Your task to perform on an android device: open app "Adobe Acrobat Reader" (install if not already installed) Image 0: 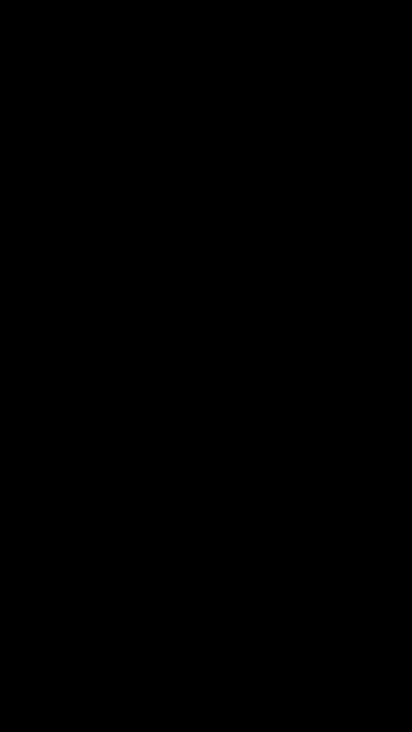
Step 0: click (165, 231)
Your task to perform on an android device: open app "Adobe Acrobat Reader" (install if not already installed) Image 1: 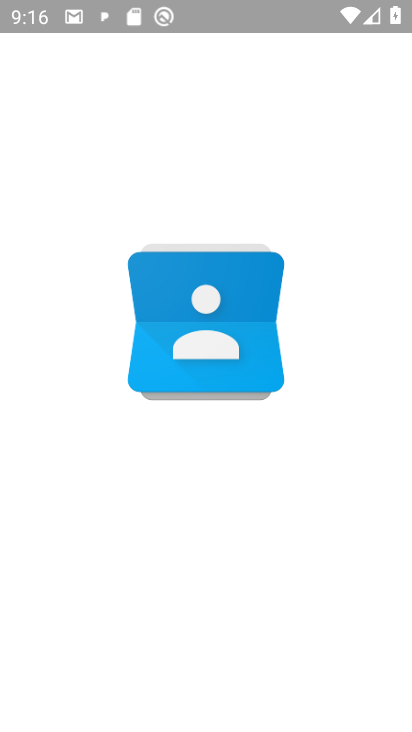
Step 1: drag from (188, 52) to (208, 356)
Your task to perform on an android device: open app "Adobe Acrobat Reader" (install if not already installed) Image 2: 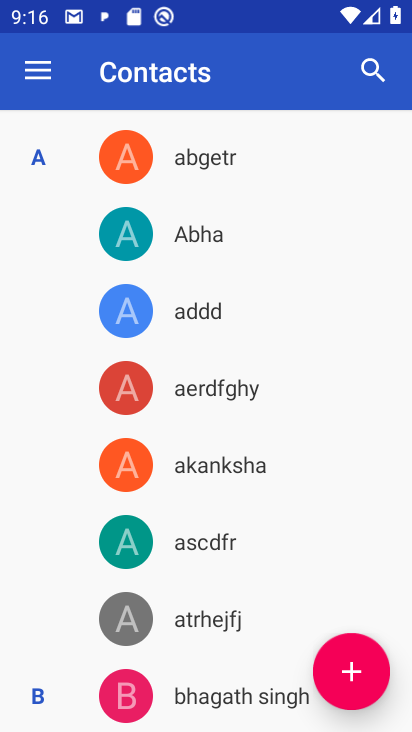
Step 2: press home button
Your task to perform on an android device: open app "Adobe Acrobat Reader" (install if not already installed) Image 3: 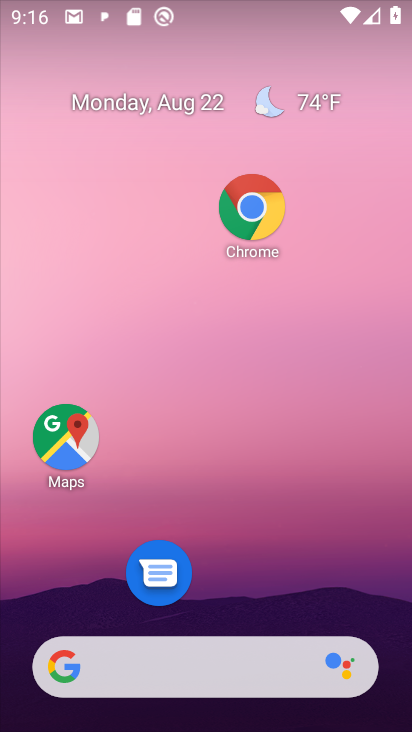
Step 3: drag from (217, 580) to (266, 82)
Your task to perform on an android device: open app "Adobe Acrobat Reader" (install if not already installed) Image 4: 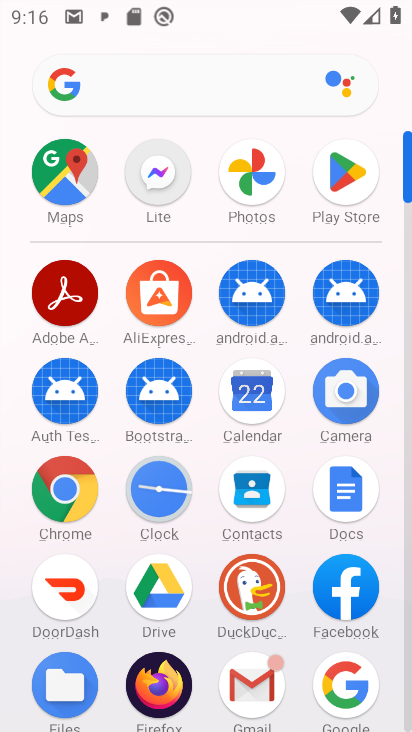
Step 4: click (354, 180)
Your task to perform on an android device: open app "Adobe Acrobat Reader" (install if not already installed) Image 5: 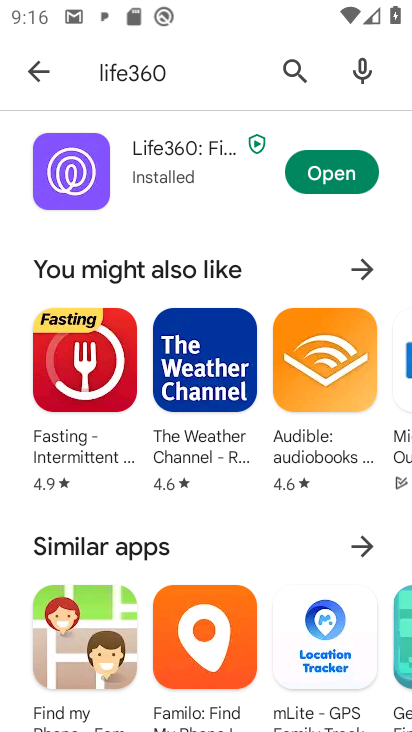
Step 5: click (172, 77)
Your task to perform on an android device: open app "Adobe Acrobat Reader" (install if not already installed) Image 6: 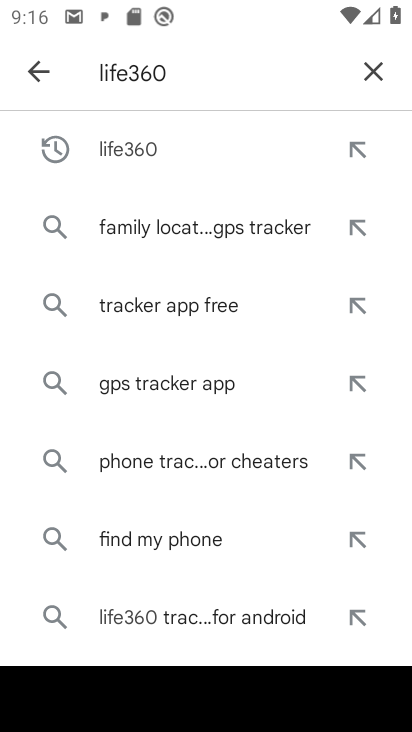
Step 6: click (376, 65)
Your task to perform on an android device: open app "Adobe Acrobat Reader" (install if not already installed) Image 7: 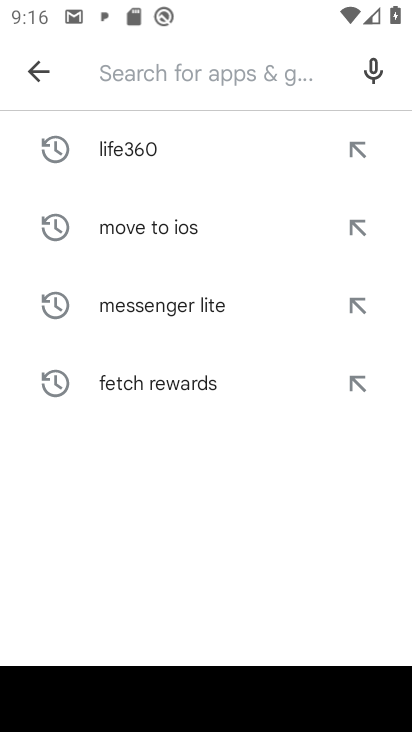
Step 7: type "Adobe Acrobat Reader"
Your task to perform on an android device: open app "Adobe Acrobat Reader" (install if not already installed) Image 8: 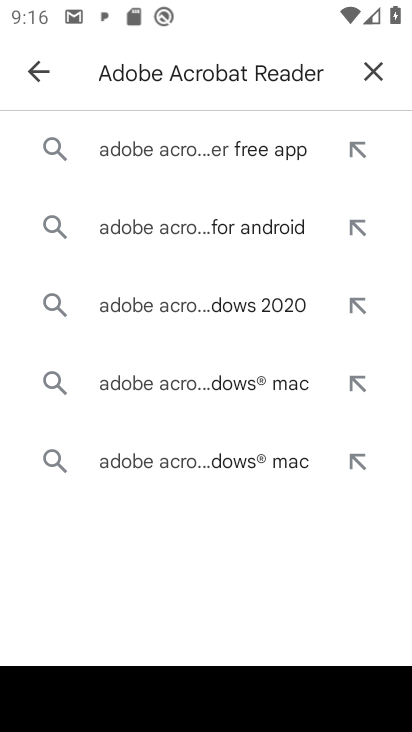
Step 8: click (237, 158)
Your task to perform on an android device: open app "Adobe Acrobat Reader" (install if not already installed) Image 9: 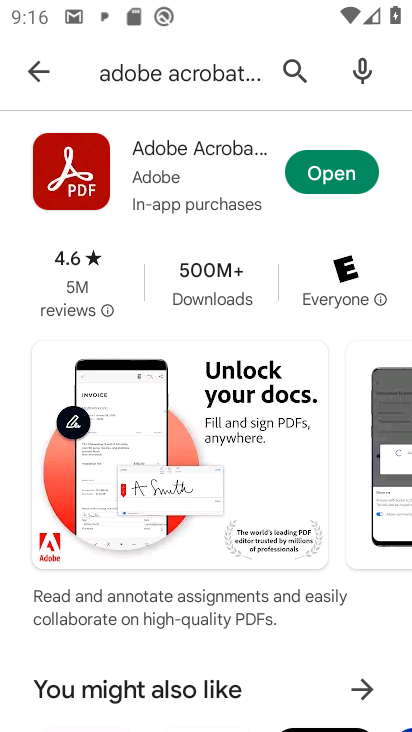
Step 9: click (327, 175)
Your task to perform on an android device: open app "Adobe Acrobat Reader" (install if not already installed) Image 10: 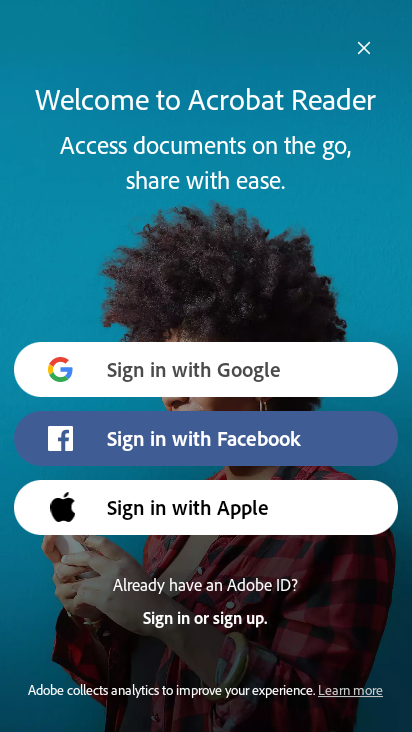
Step 10: task complete